Your task to perform on an android device: toggle javascript in the chrome app Image 0: 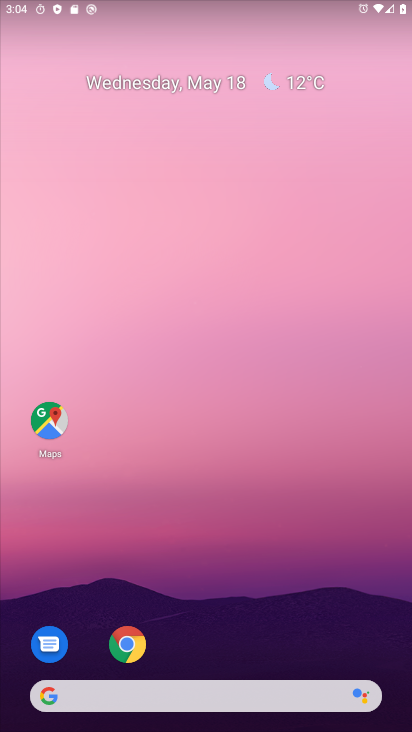
Step 0: click (125, 638)
Your task to perform on an android device: toggle javascript in the chrome app Image 1: 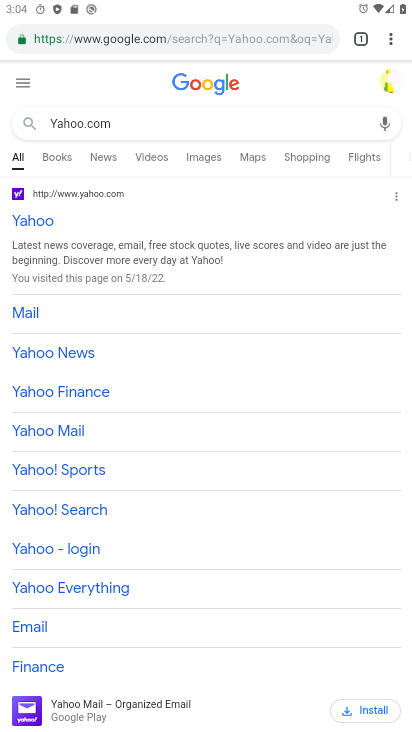
Step 1: click (387, 32)
Your task to perform on an android device: toggle javascript in the chrome app Image 2: 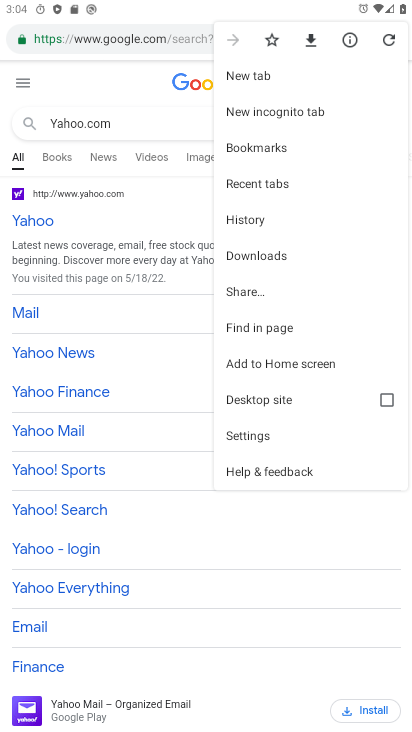
Step 2: click (234, 431)
Your task to perform on an android device: toggle javascript in the chrome app Image 3: 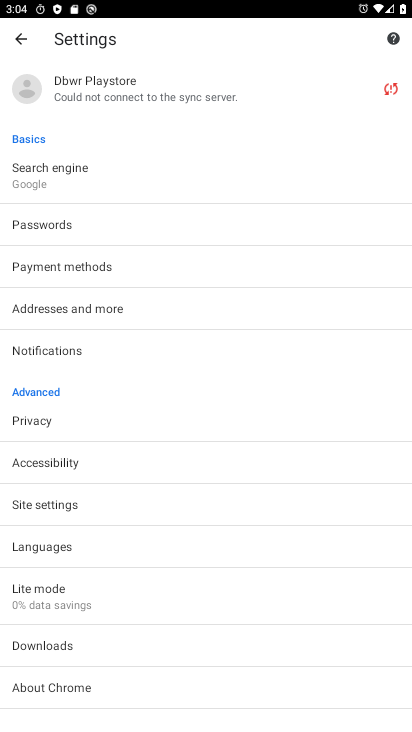
Step 3: click (38, 507)
Your task to perform on an android device: toggle javascript in the chrome app Image 4: 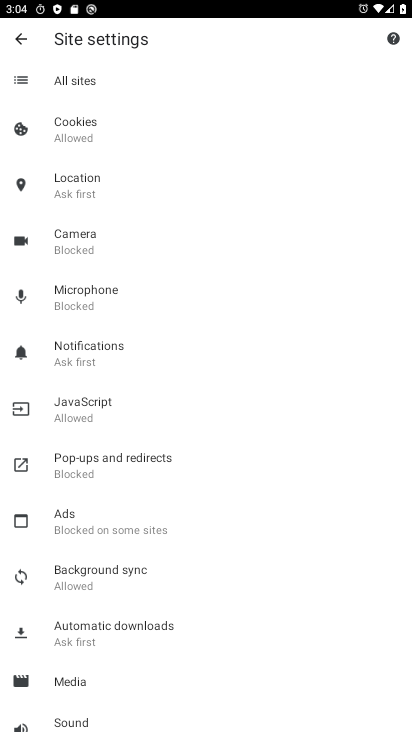
Step 4: click (89, 396)
Your task to perform on an android device: toggle javascript in the chrome app Image 5: 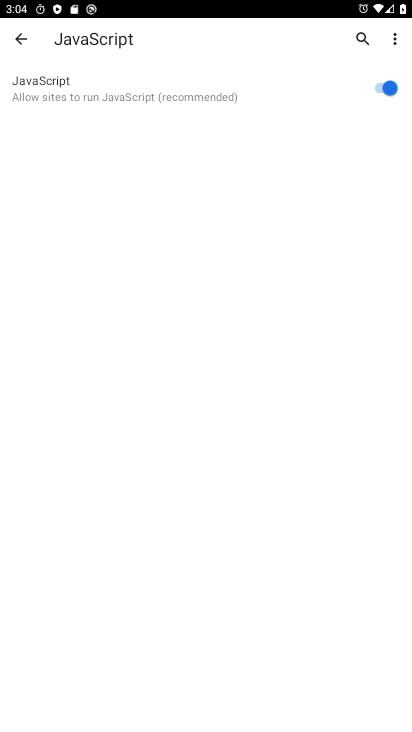
Step 5: click (375, 88)
Your task to perform on an android device: toggle javascript in the chrome app Image 6: 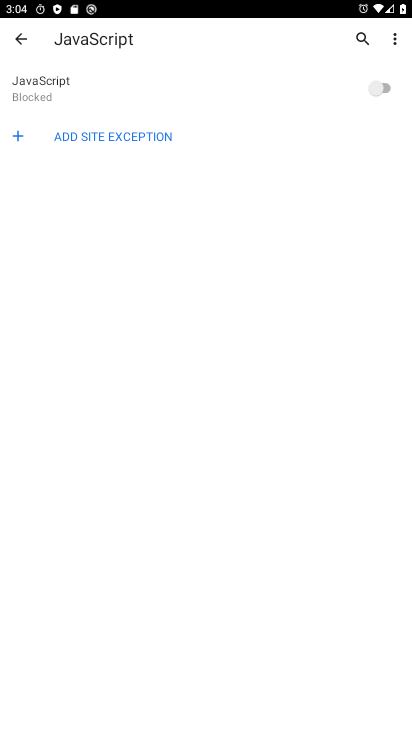
Step 6: task complete